Your task to perform on an android device: Toggle the flashlight Image 0: 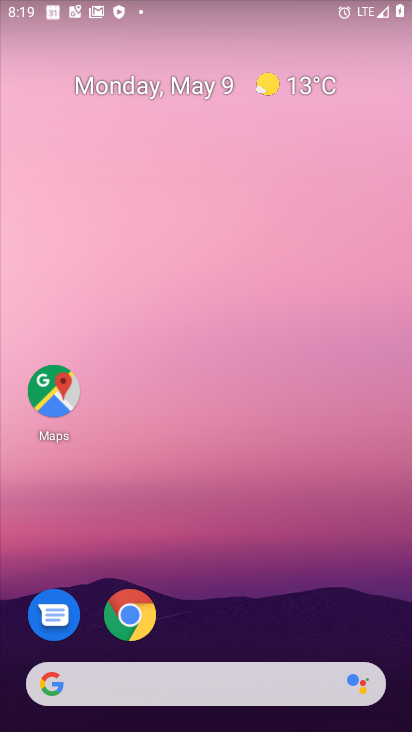
Step 0: drag from (206, 624) to (268, 106)
Your task to perform on an android device: Toggle the flashlight Image 1: 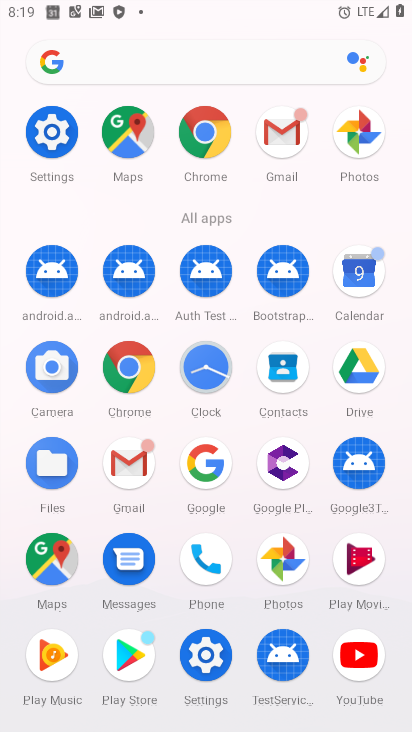
Step 1: click (41, 149)
Your task to perform on an android device: Toggle the flashlight Image 2: 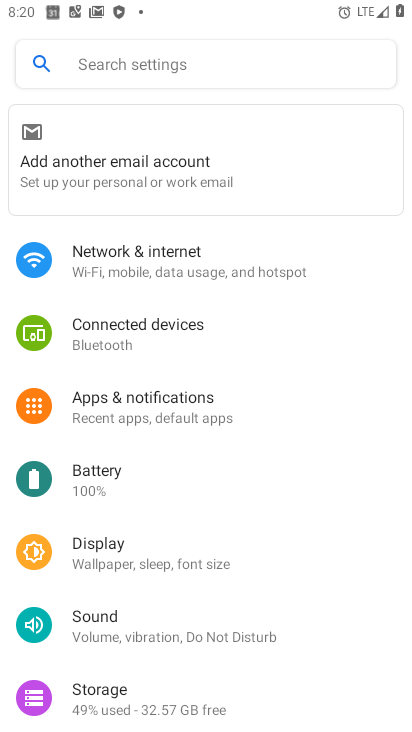
Step 2: task complete